Your task to perform on an android device: Open Amazon Image 0: 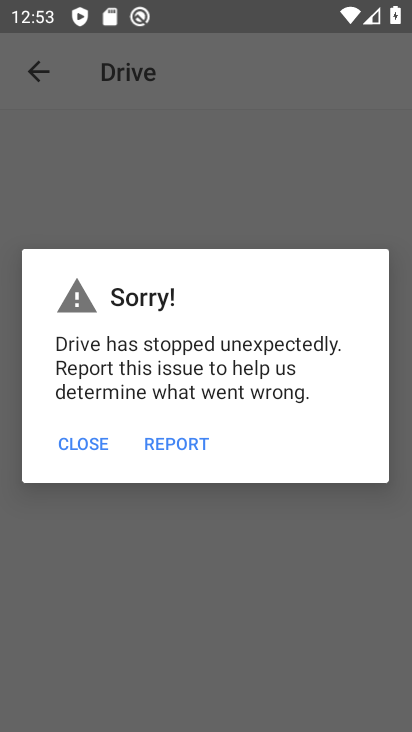
Step 0: press home button
Your task to perform on an android device: Open Amazon Image 1: 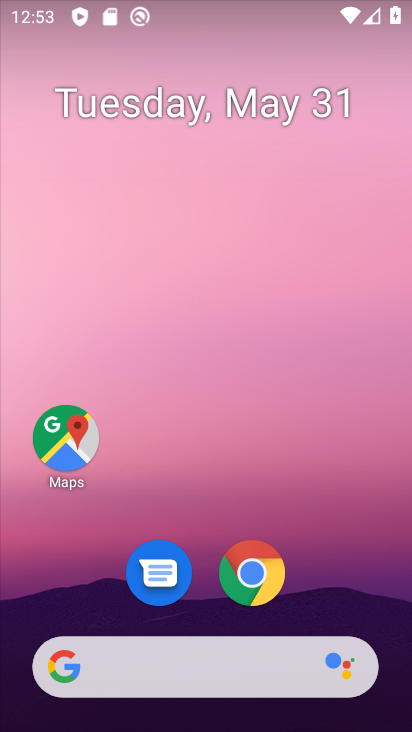
Step 1: drag from (358, 599) to (328, 129)
Your task to perform on an android device: Open Amazon Image 2: 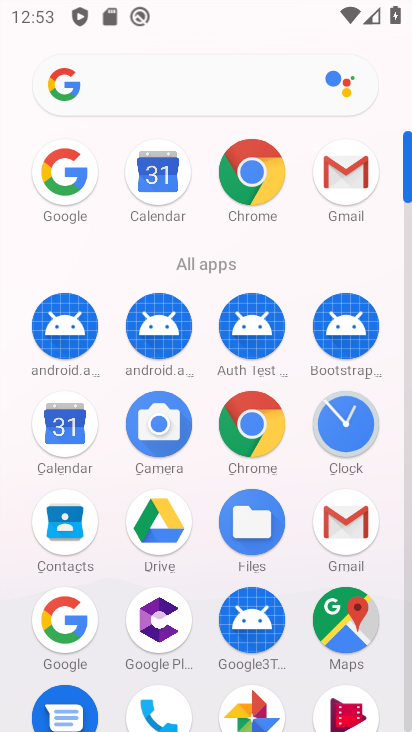
Step 2: click (270, 436)
Your task to perform on an android device: Open Amazon Image 3: 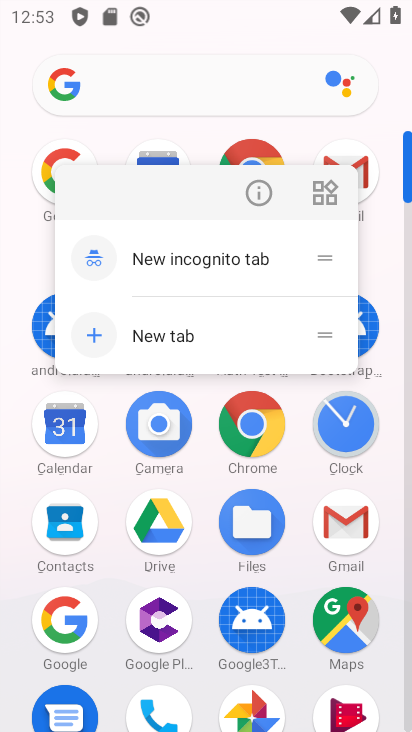
Step 3: click (270, 436)
Your task to perform on an android device: Open Amazon Image 4: 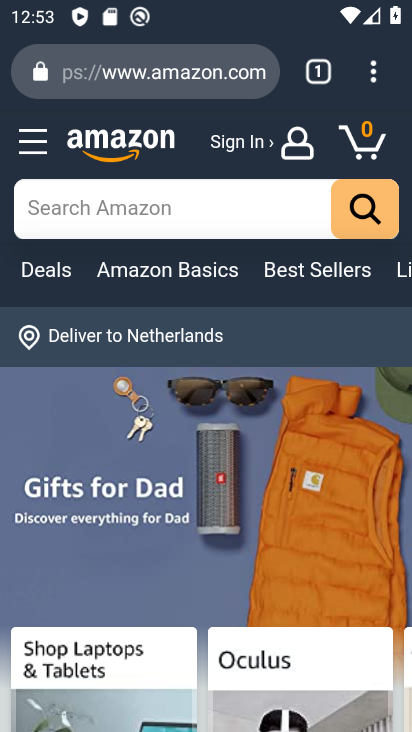
Step 4: task complete